Your task to perform on an android device: toggle airplane mode Image 0: 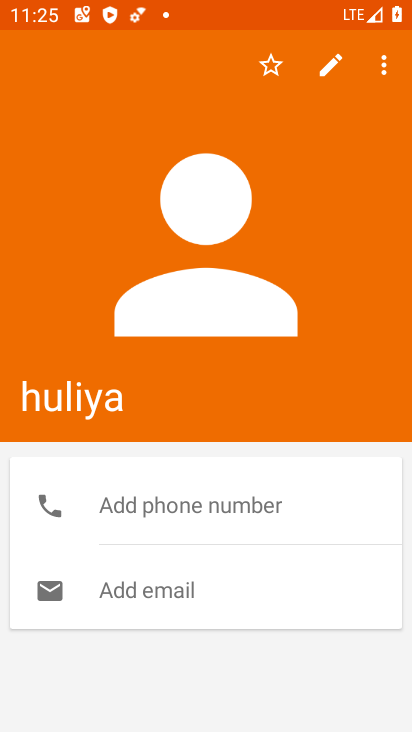
Step 0: press home button
Your task to perform on an android device: toggle airplane mode Image 1: 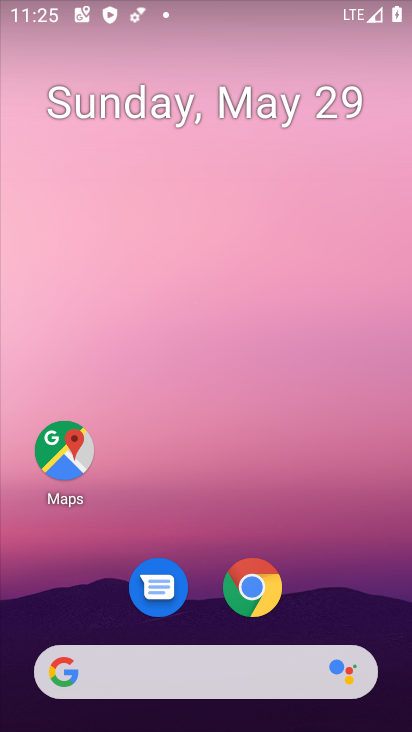
Step 1: drag from (308, 392) to (301, 29)
Your task to perform on an android device: toggle airplane mode Image 2: 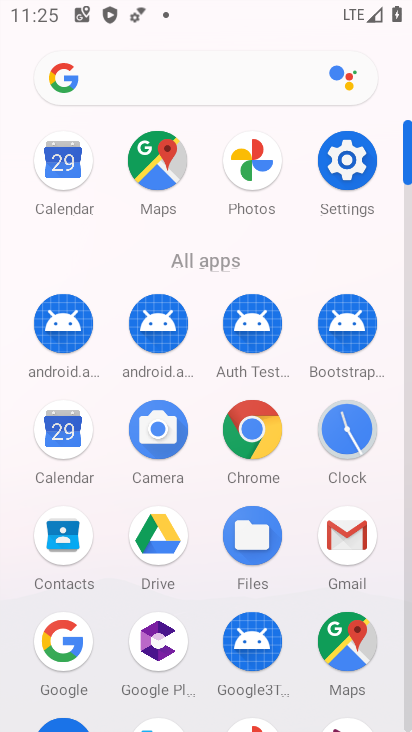
Step 2: click (343, 159)
Your task to perform on an android device: toggle airplane mode Image 3: 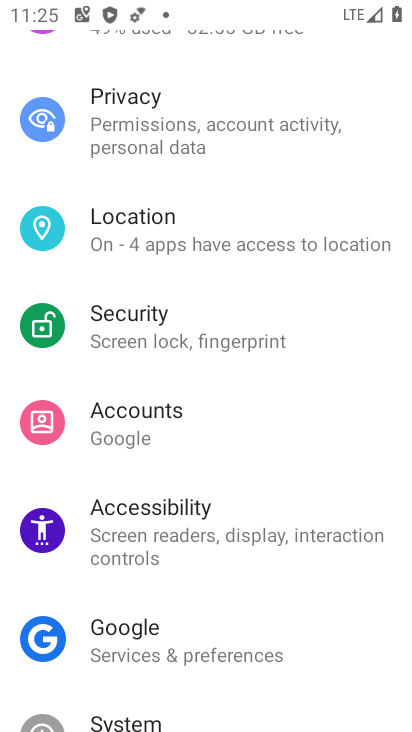
Step 3: drag from (199, 115) to (230, 575)
Your task to perform on an android device: toggle airplane mode Image 4: 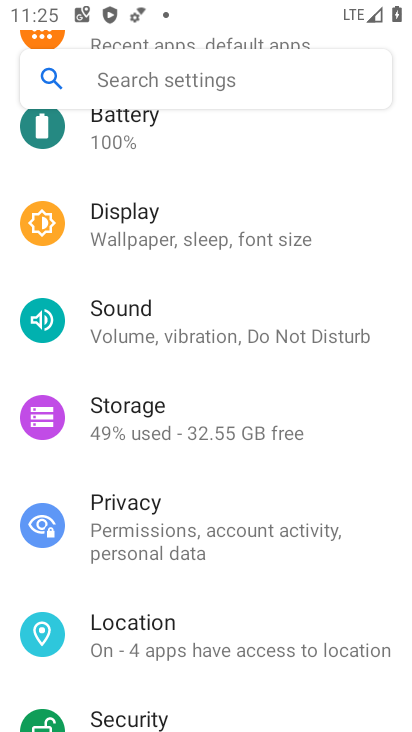
Step 4: drag from (234, 263) to (228, 581)
Your task to perform on an android device: toggle airplane mode Image 5: 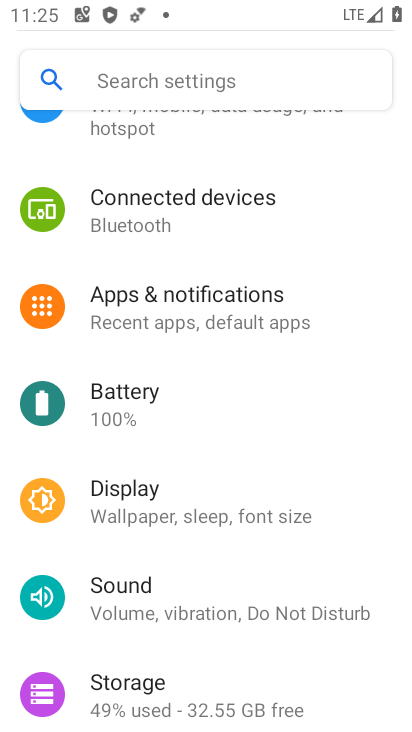
Step 5: drag from (211, 230) to (220, 601)
Your task to perform on an android device: toggle airplane mode Image 6: 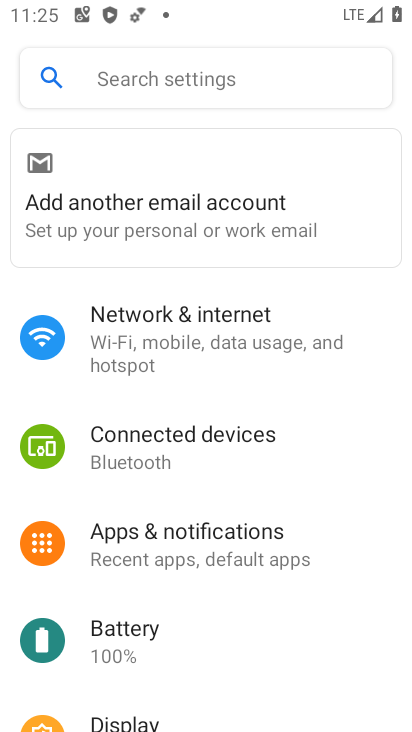
Step 6: drag from (229, 262) to (223, 541)
Your task to perform on an android device: toggle airplane mode Image 7: 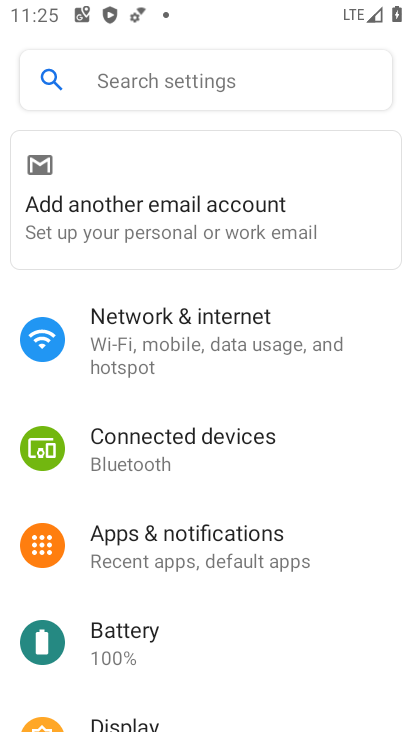
Step 7: click (206, 346)
Your task to perform on an android device: toggle airplane mode Image 8: 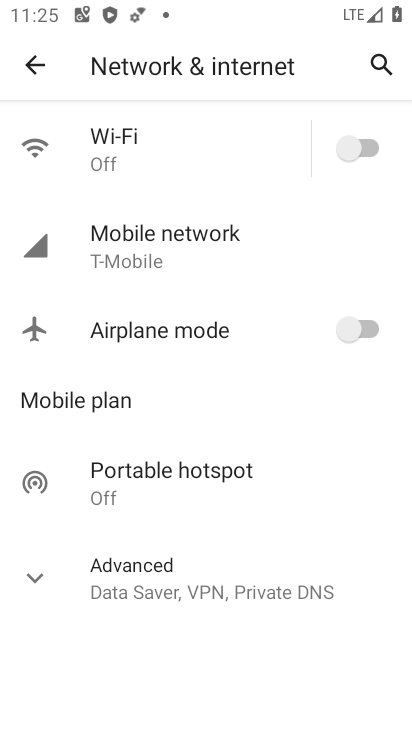
Step 8: click (363, 342)
Your task to perform on an android device: toggle airplane mode Image 9: 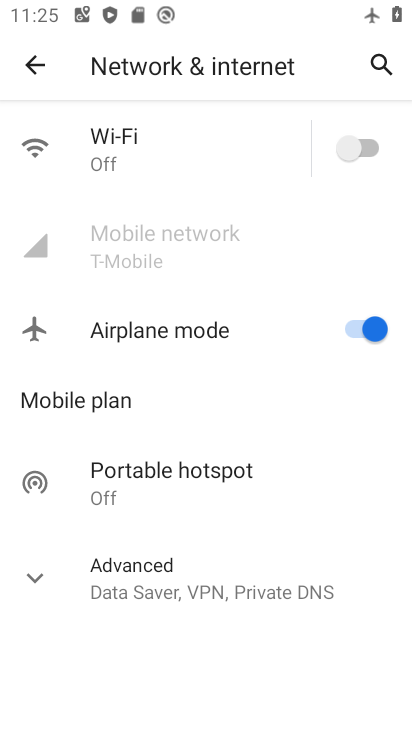
Step 9: task complete